Your task to perform on an android device: turn pop-ups off in chrome Image 0: 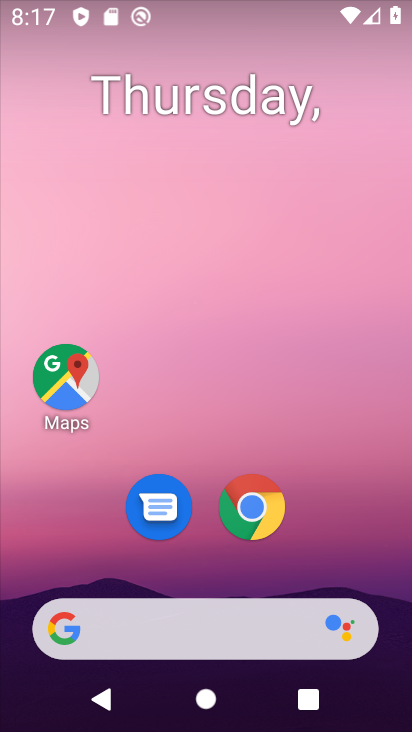
Step 0: click (254, 504)
Your task to perform on an android device: turn pop-ups off in chrome Image 1: 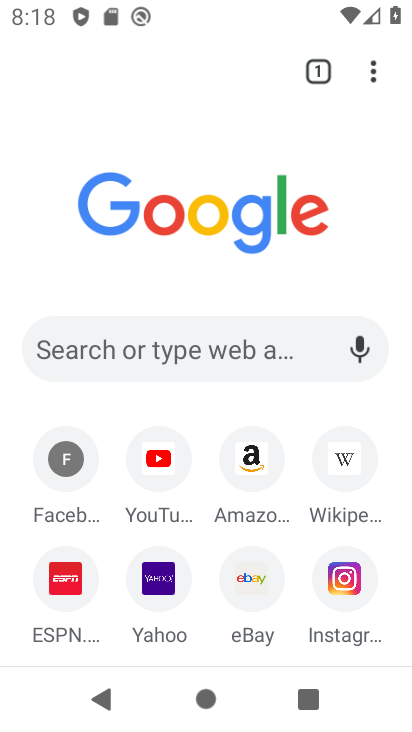
Step 1: click (372, 82)
Your task to perform on an android device: turn pop-ups off in chrome Image 2: 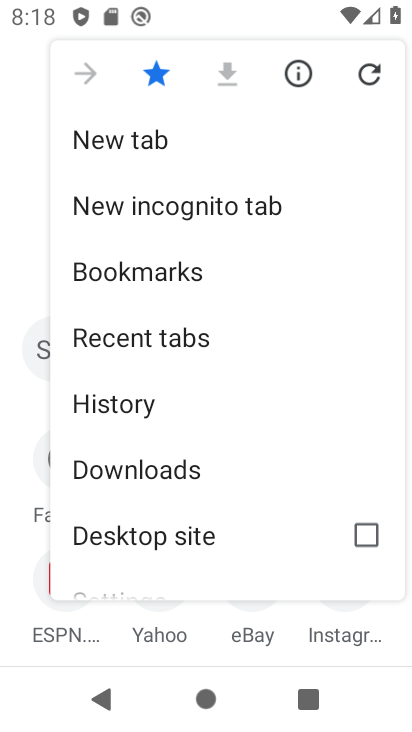
Step 2: drag from (169, 468) to (200, 190)
Your task to perform on an android device: turn pop-ups off in chrome Image 3: 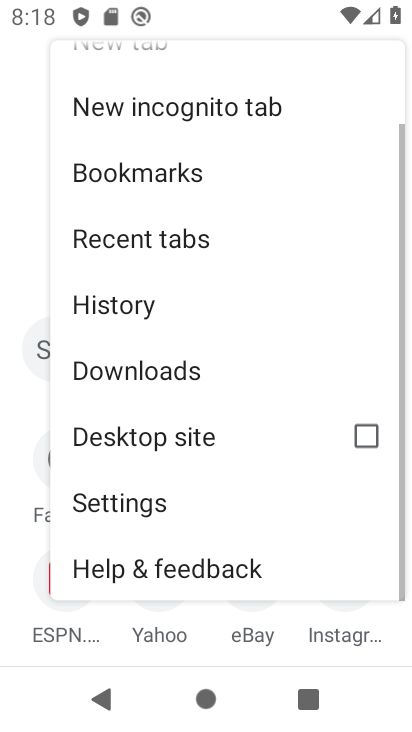
Step 3: click (119, 485)
Your task to perform on an android device: turn pop-ups off in chrome Image 4: 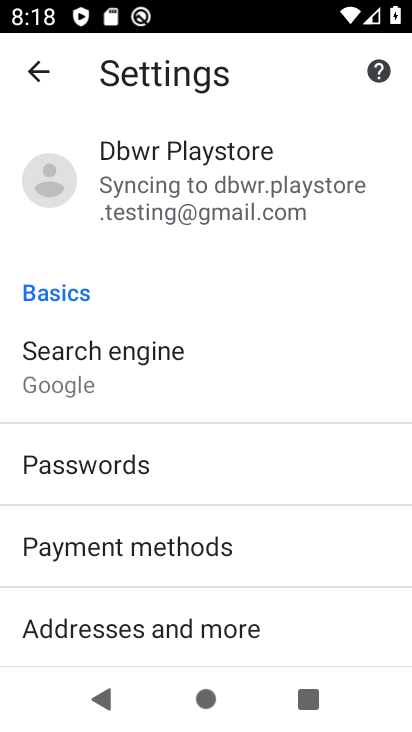
Step 4: drag from (198, 541) to (224, 245)
Your task to perform on an android device: turn pop-ups off in chrome Image 5: 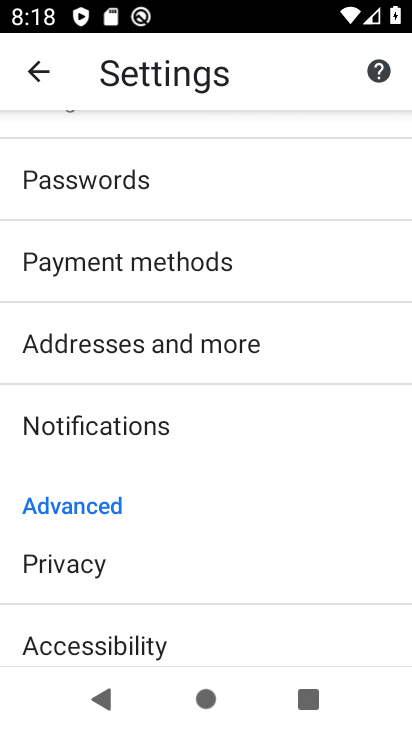
Step 5: drag from (119, 548) to (177, 98)
Your task to perform on an android device: turn pop-ups off in chrome Image 6: 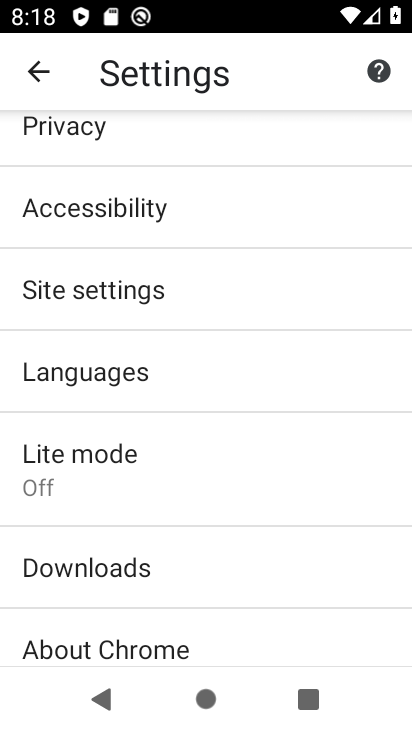
Step 6: click (126, 306)
Your task to perform on an android device: turn pop-ups off in chrome Image 7: 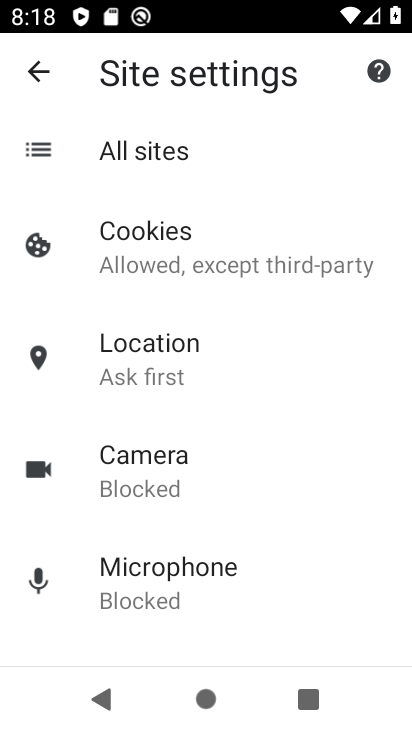
Step 7: drag from (157, 525) to (227, 243)
Your task to perform on an android device: turn pop-ups off in chrome Image 8: 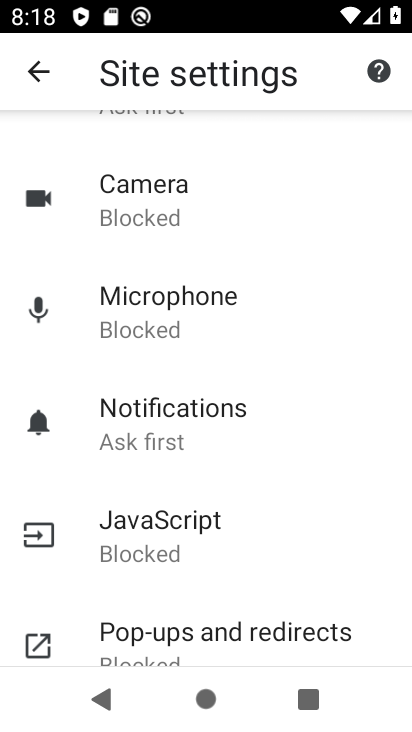
Step 8: click (192, 635)
Your task to perform on an android device: turn pop-ups off in chrome Image 9: 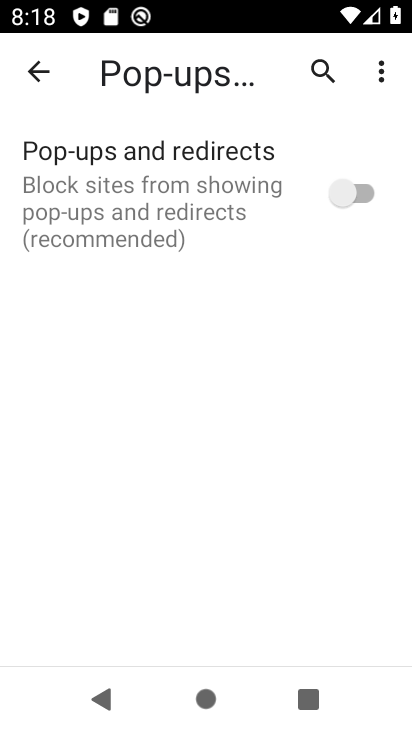
Step 9: task complete